Your task to perform on an android device: Search for Mexican restaurants on Maps Image 0: 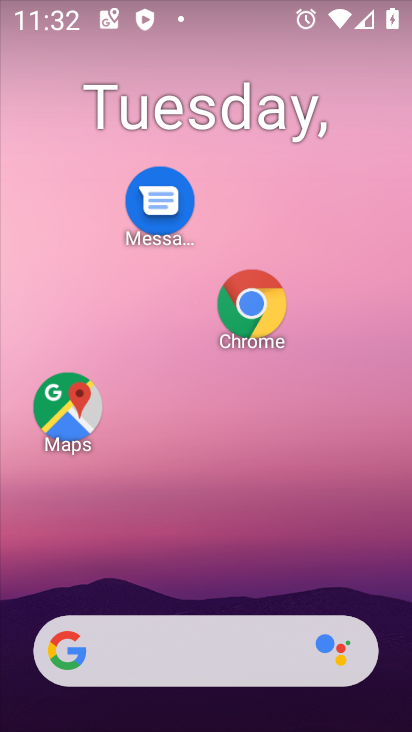
Step 0: drag from (244, 503) to (256, 217)
Your task to perform on an android device: Search for Mexican restaurants on Maps Image 1: 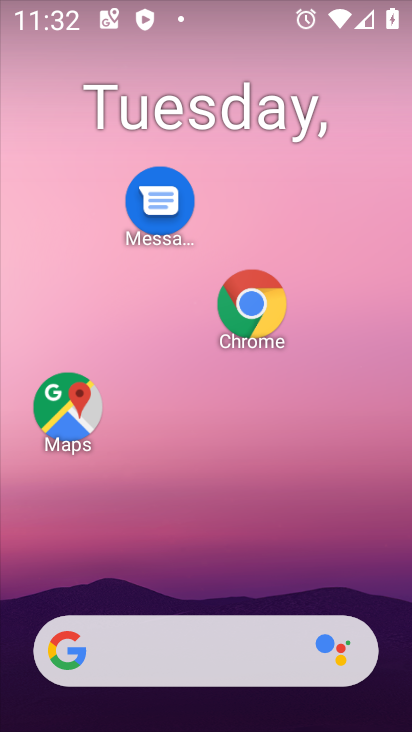
Step 1: drag from (222, 564) to (324, 105)
Your task to perform on an android device: Search for Mexican restaurants on Maps Image 2: 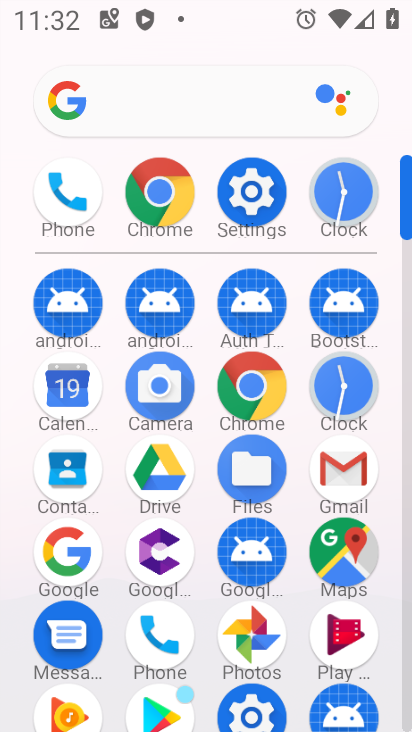
Step 2: click (348, 549)
Your task to perform on an android device: Search for Mexican restaurants on Maps Image 3: 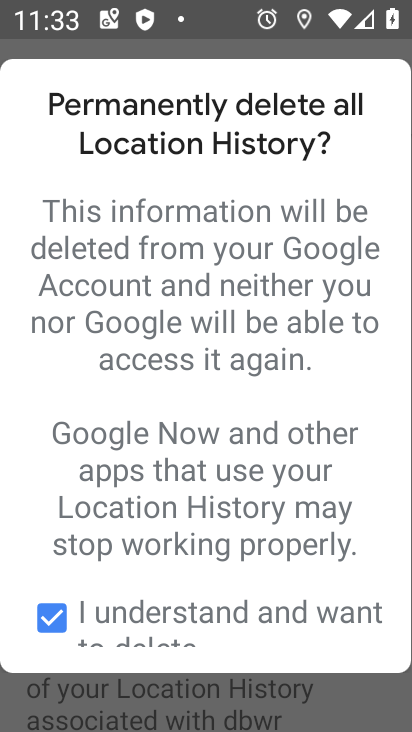
Step 3: press back button
Your task to perform on an android device: Search for Mexican restaurants on Maps Image 4: 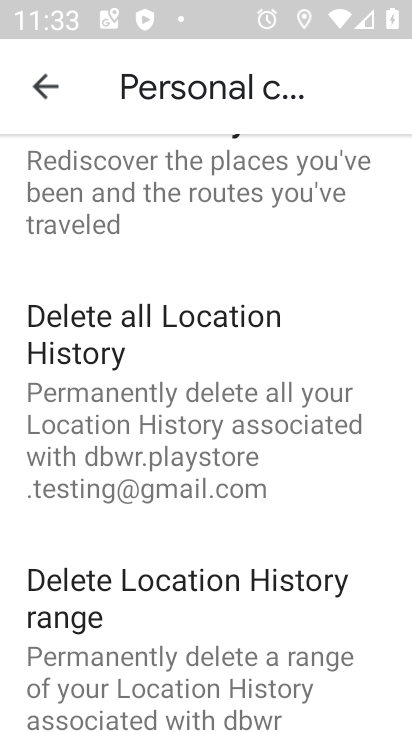
Step 4: click (58, 82)
Your task to perform on an android device: Search for Mexican restaurants on Maps Image 5: 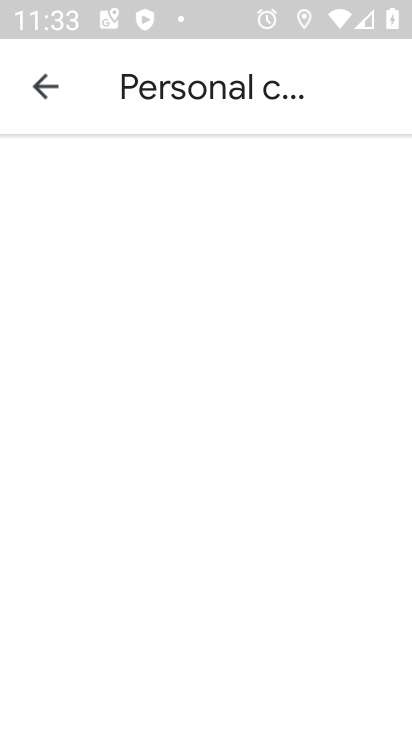
Step 5: click (58, 82)
Your task to perform on an android device: Search for Mexican restaurants on Maps Image 6: 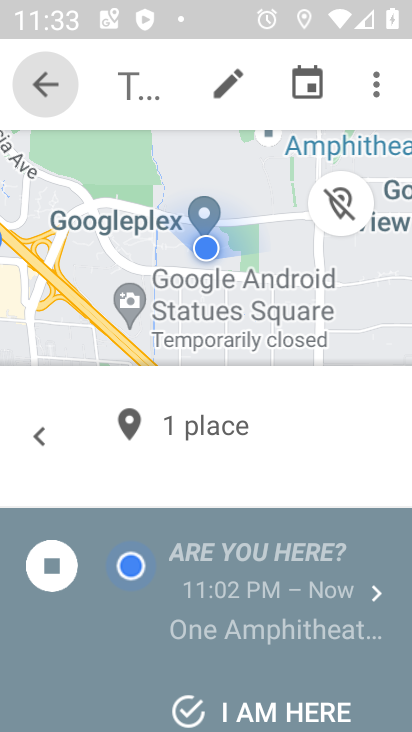
Step 6: click (58, 82)
Your task to perform on an android device: Search for Mexican restaurants on Maps Image 7: 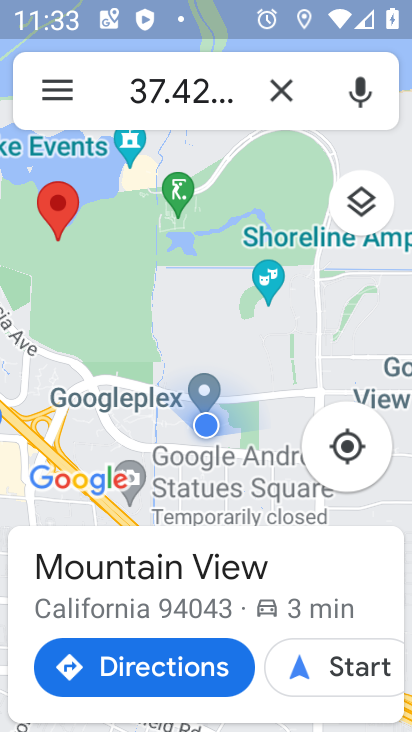
Step 7: click (274, 80)
Your task to perform on an android device: Search for Mexican restaurants on Maps Image 8: 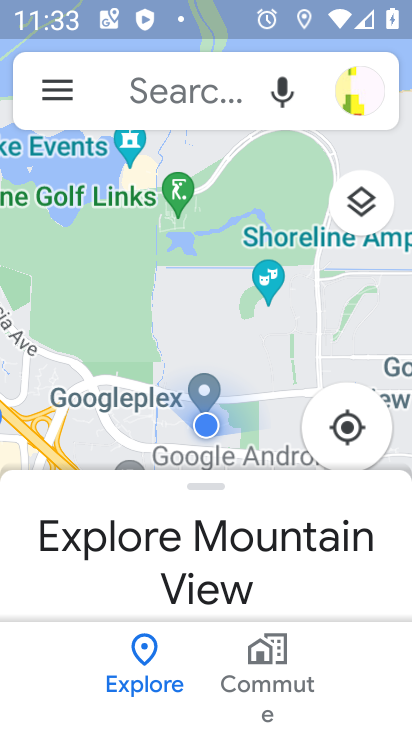
Step 8: click (154, 82)
Your task to perform on an android device: Search for Mexican restaurants on Maps Image 9: 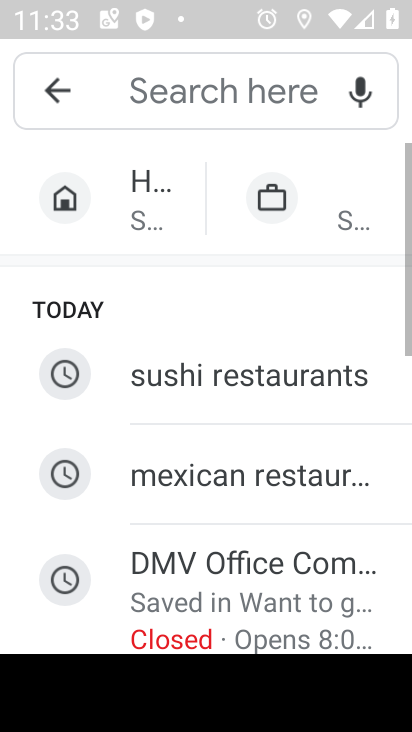
Step 9: type " Mexican restaurants o"
Your task to perform on an android device: Search for Mexican restaurants on Maps Image 10: 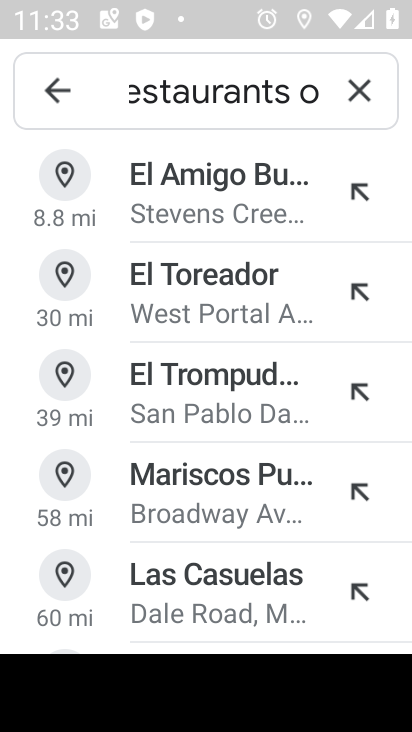
Step 10: click (233, 186)
Your task to perform on an android device: Search for Mexican restaurants on Maps Image 11: 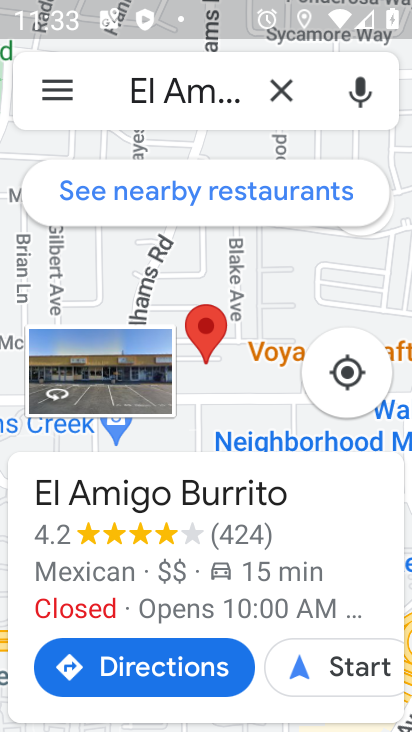
Step 11: click (286, 89)
Your task to perform on an android device: Search for Mexican restaurants on Maps Image 12: 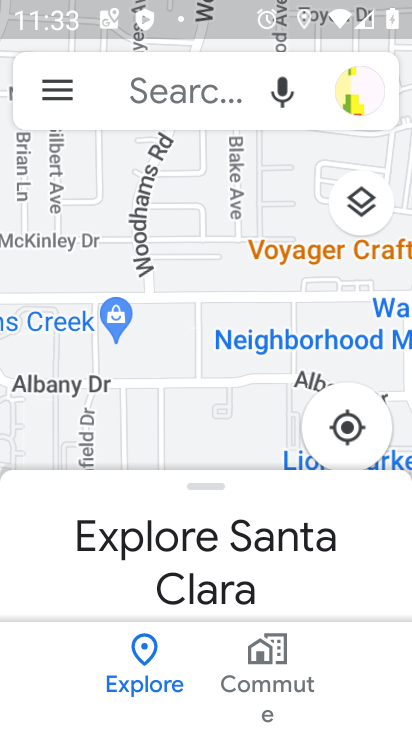
Step 12: click (149, 100)
Your task to perform on an android device: Search for Mexican restaurants on Maps Image 13: 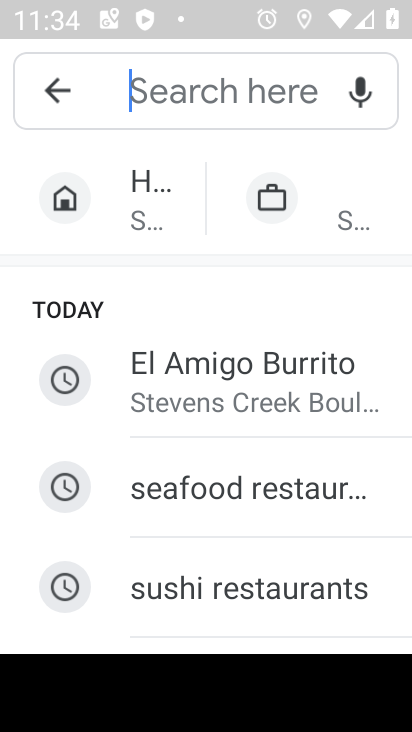
Step 13: type "mexican "
Your task to perform on an android device: Search for Mexican restaurants on Maps Image 14: 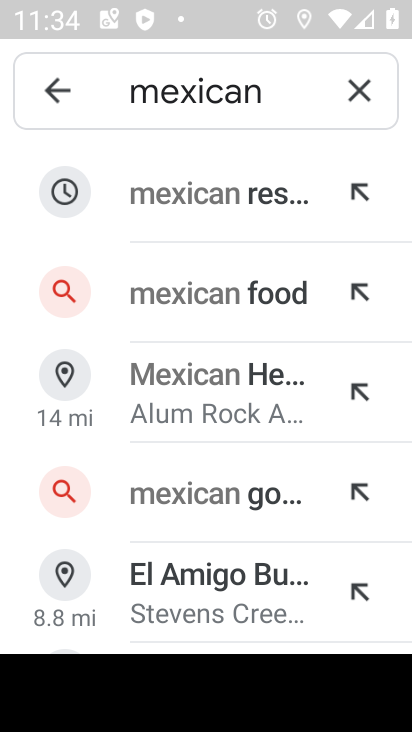
Step 14: click (232, 218)
Your task to perform on an android device: Search for Mexican restaurants on Maps Image 15: 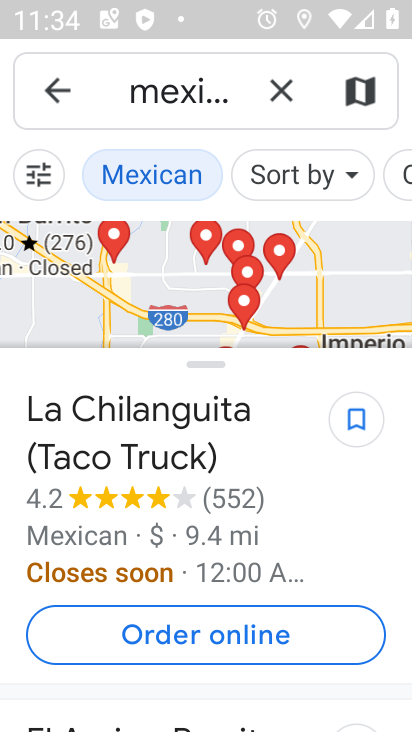
Step 15: task complete